Your task to perform on an android device: open app "File Manager" Image 0: 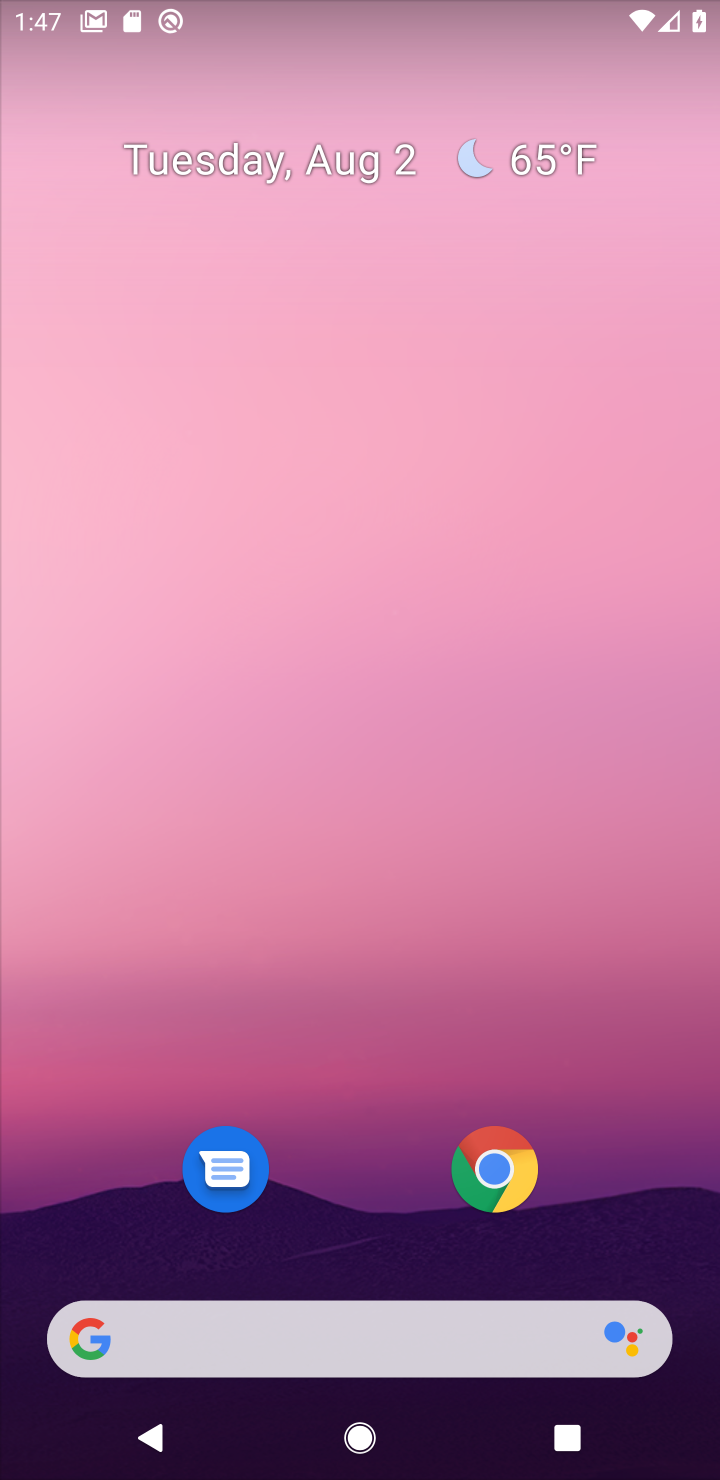
Step 0: press home button
Your task to perform on an android device: open app "File Manager" Image 1: 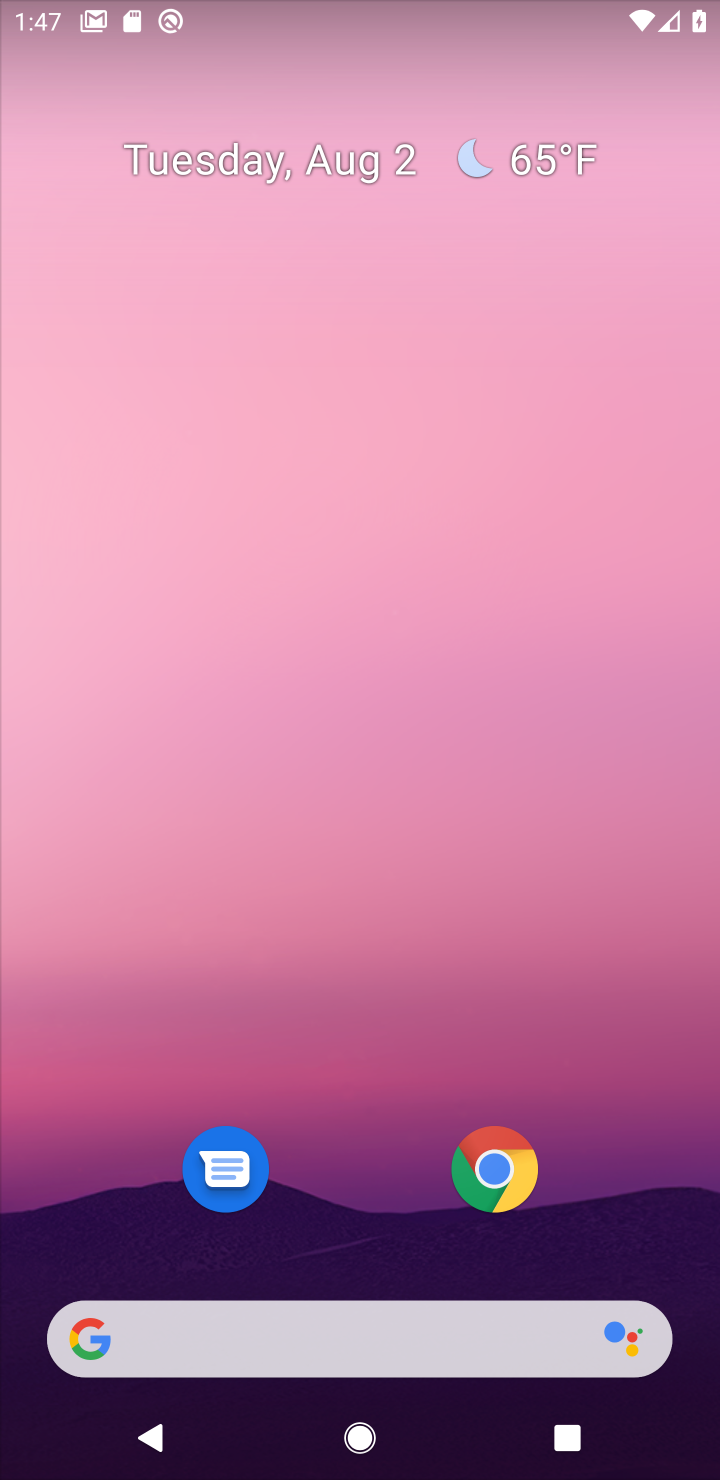
Step 1: drag from (349, 1216) to (313, 2)
Your task to perform on an android device: open app "File Manager" Image 2: 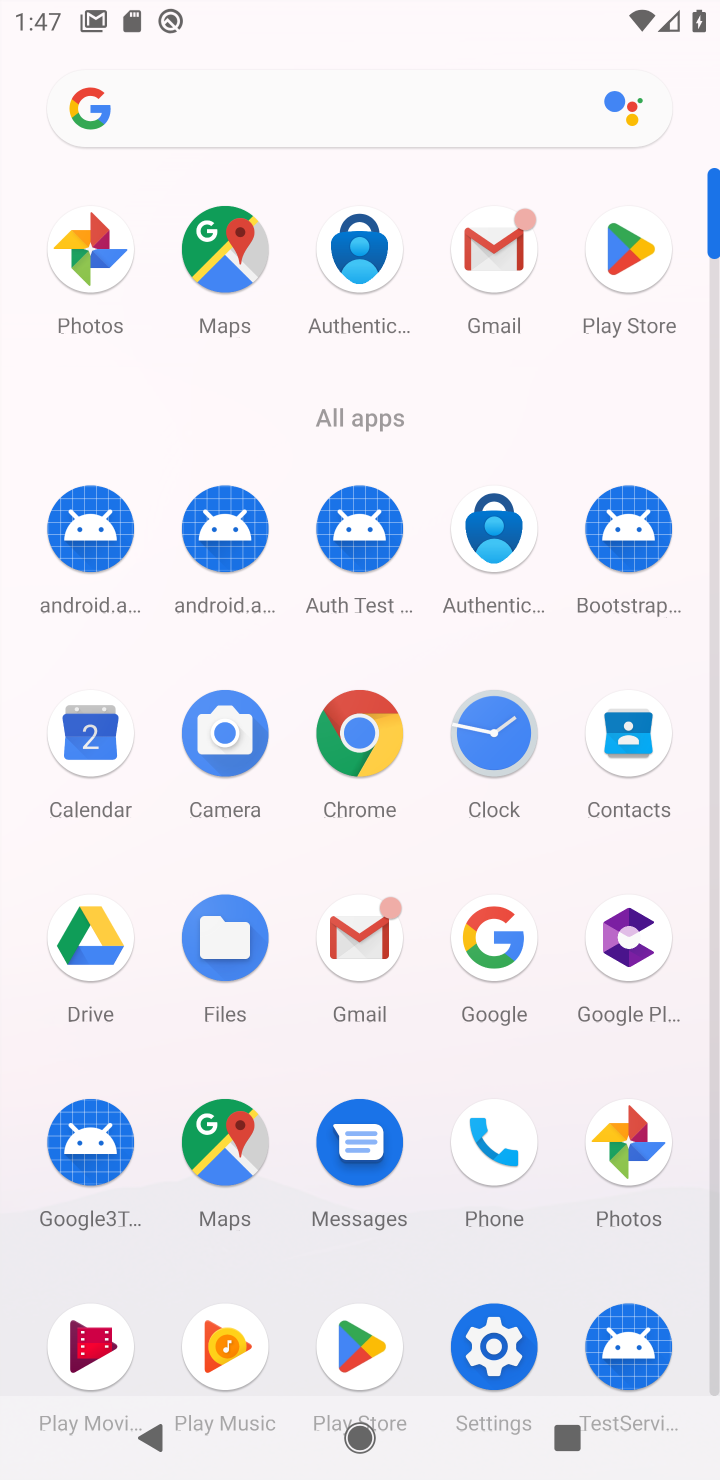
Step 2: click (626, 238)
Your task to perform on an android device: open app "File Manager" Image 3: 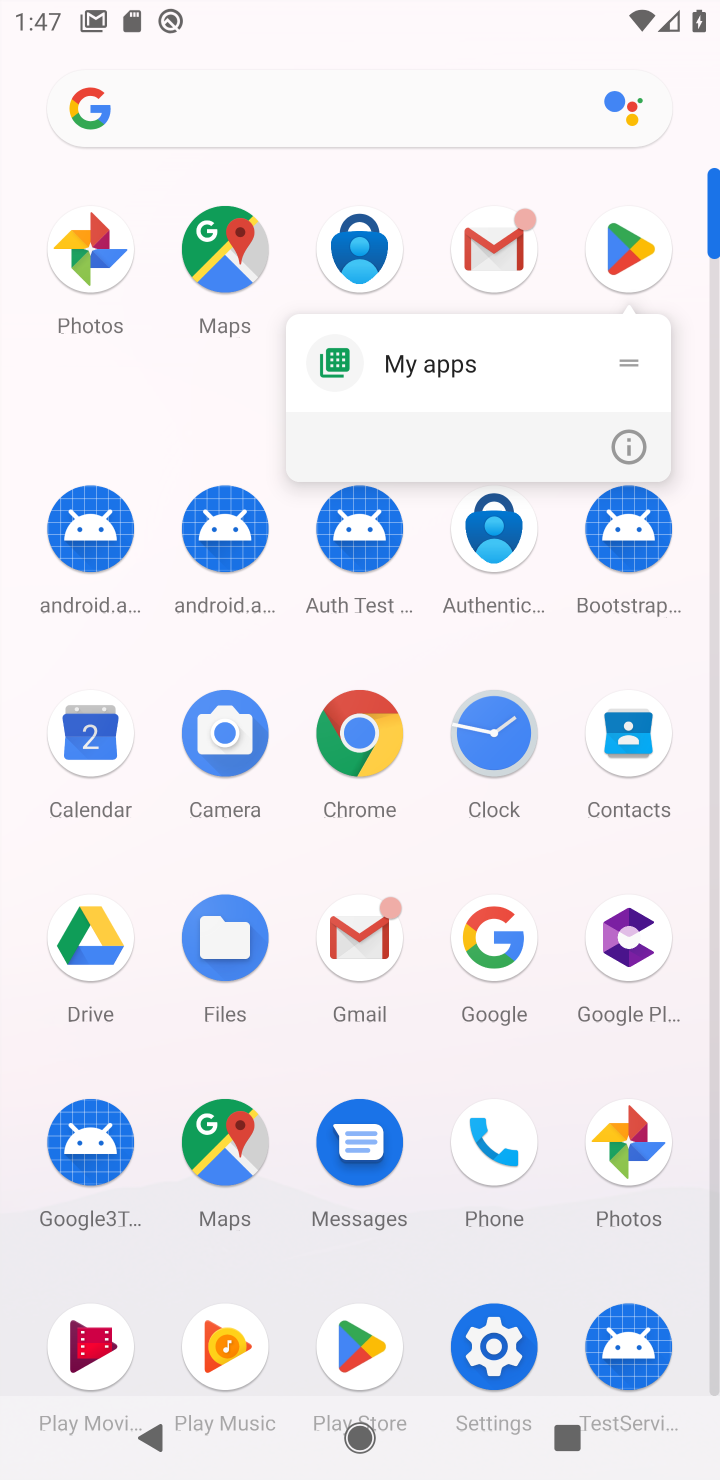
Step 3: click (637, 246)
Your task to perform on an android device: open app "File Manager" Image 4: 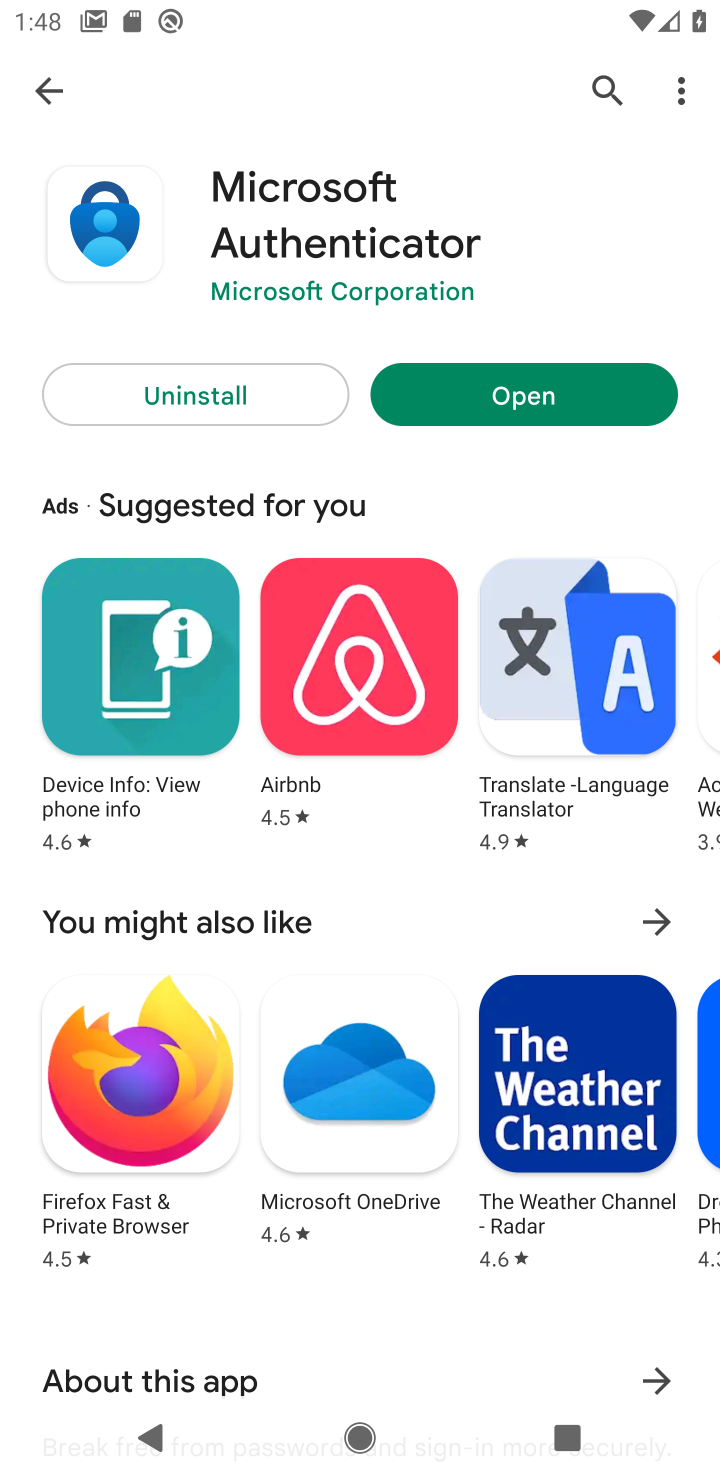
Step 4: click (598, 79)
Your task to perform on an android device: open app "File Manager" Image 5: 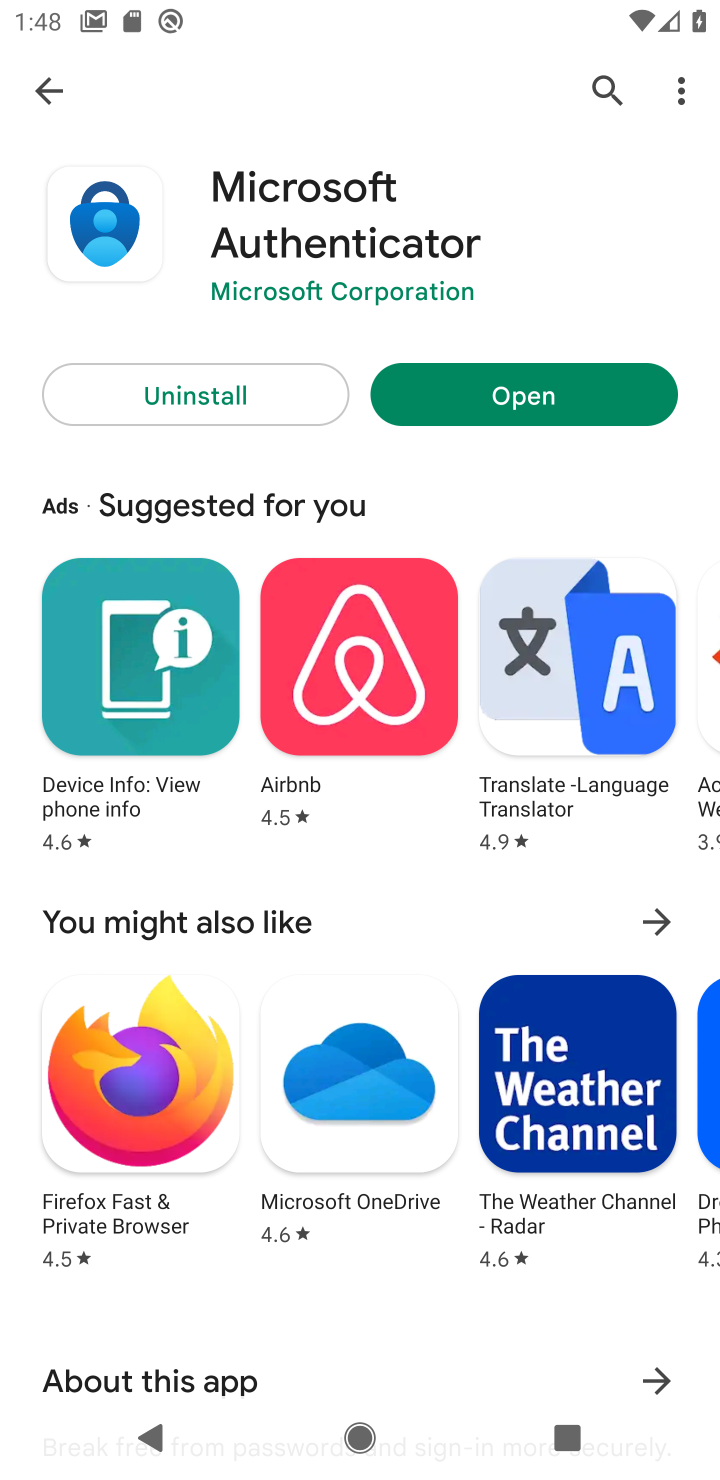
Step 5: click (601, 95)
Your task to perform on an android device: open app "File Manager" Image 6: 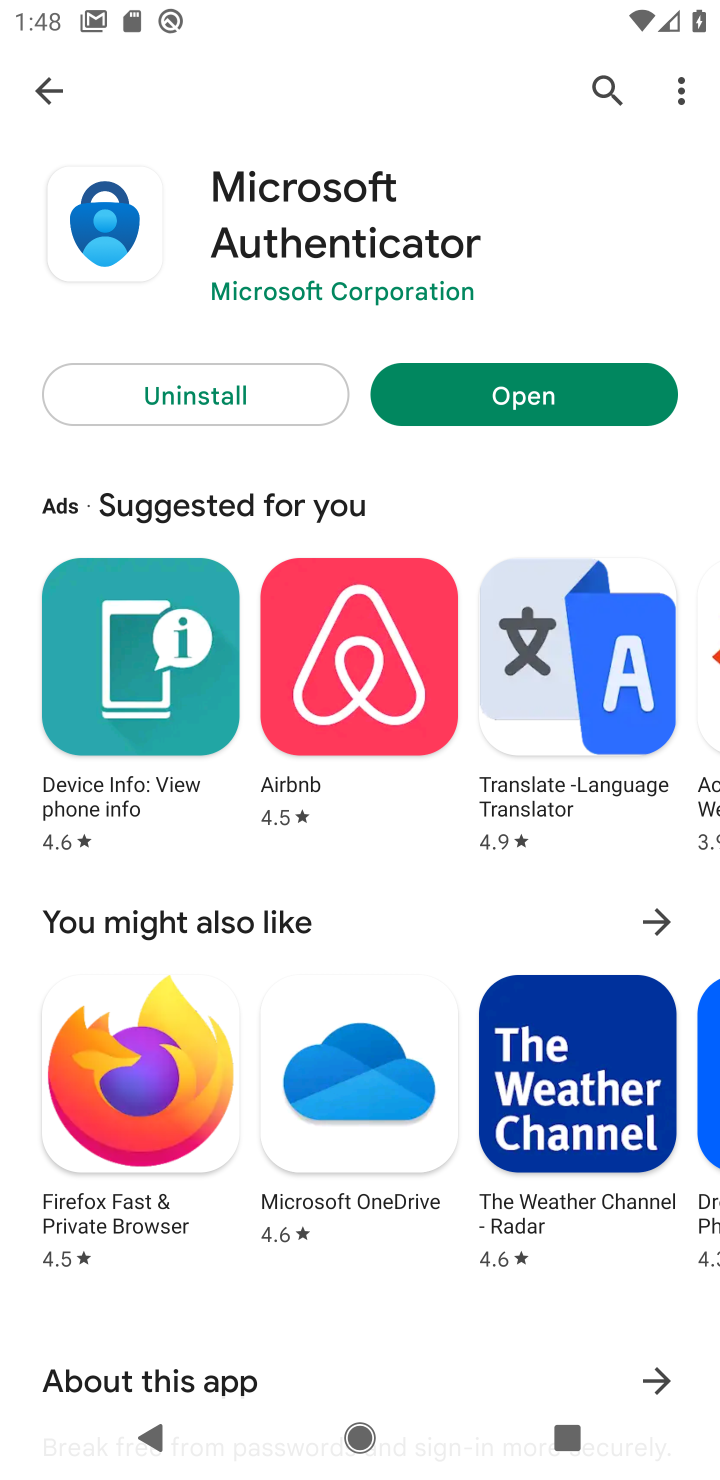
Step 6: click (606, 93)
Your task to perform on an android device: open app "File Manager" Image 7: 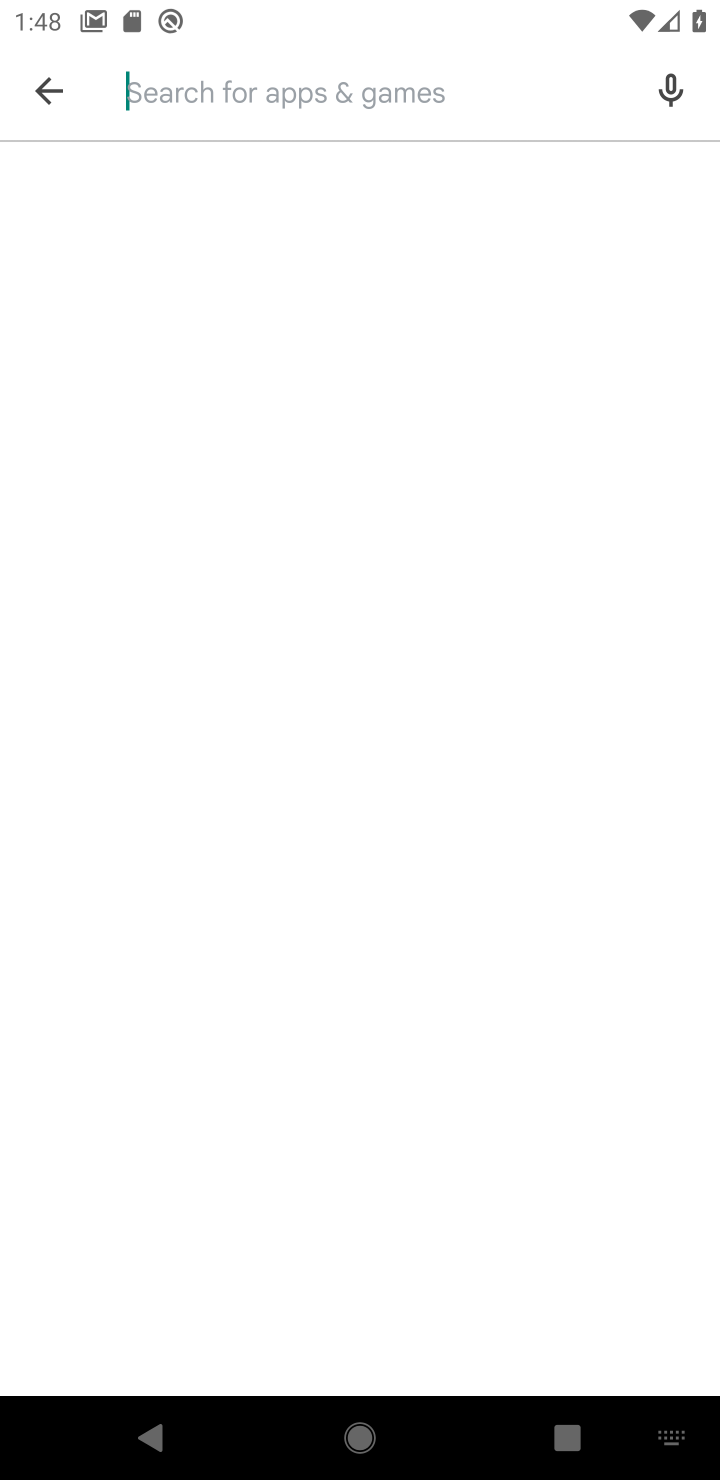
Step 7: type "File Manager"
Your task to perform on an android device: open app "File Manager" Image 8: 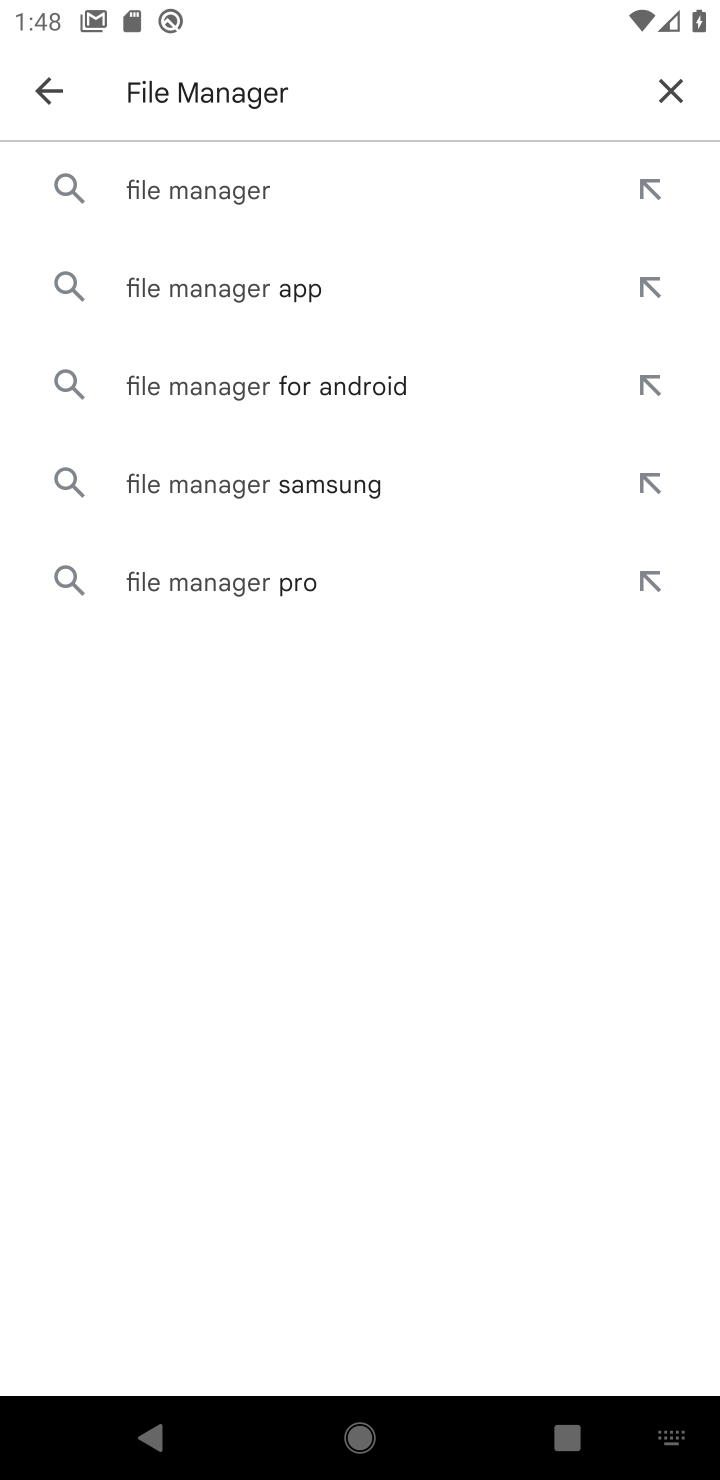
Step 8: click (244, 193)
Your task to perform on an android device: open app "File Manager" Image 9: 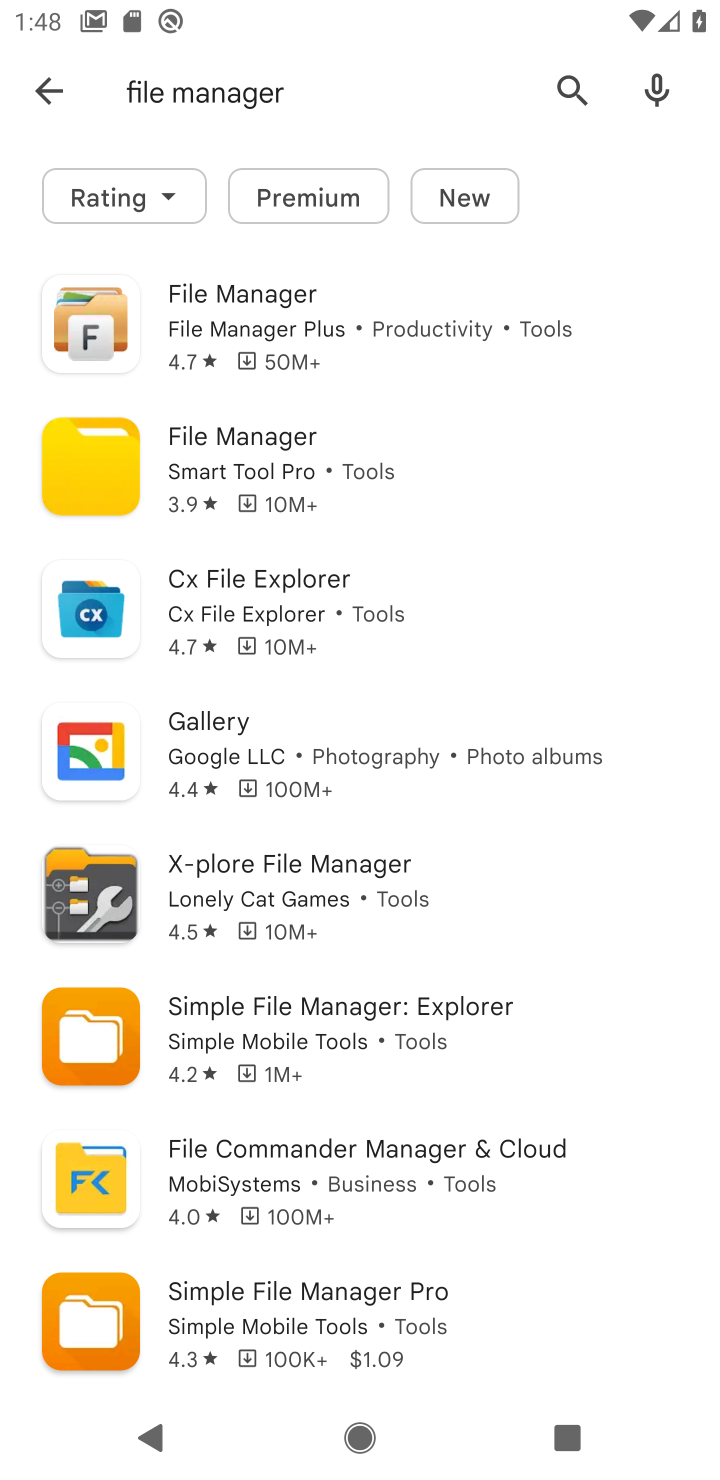
Step 9: click (228, 467)
Your task to perform on an android device: open app "File Manager" Image 10: 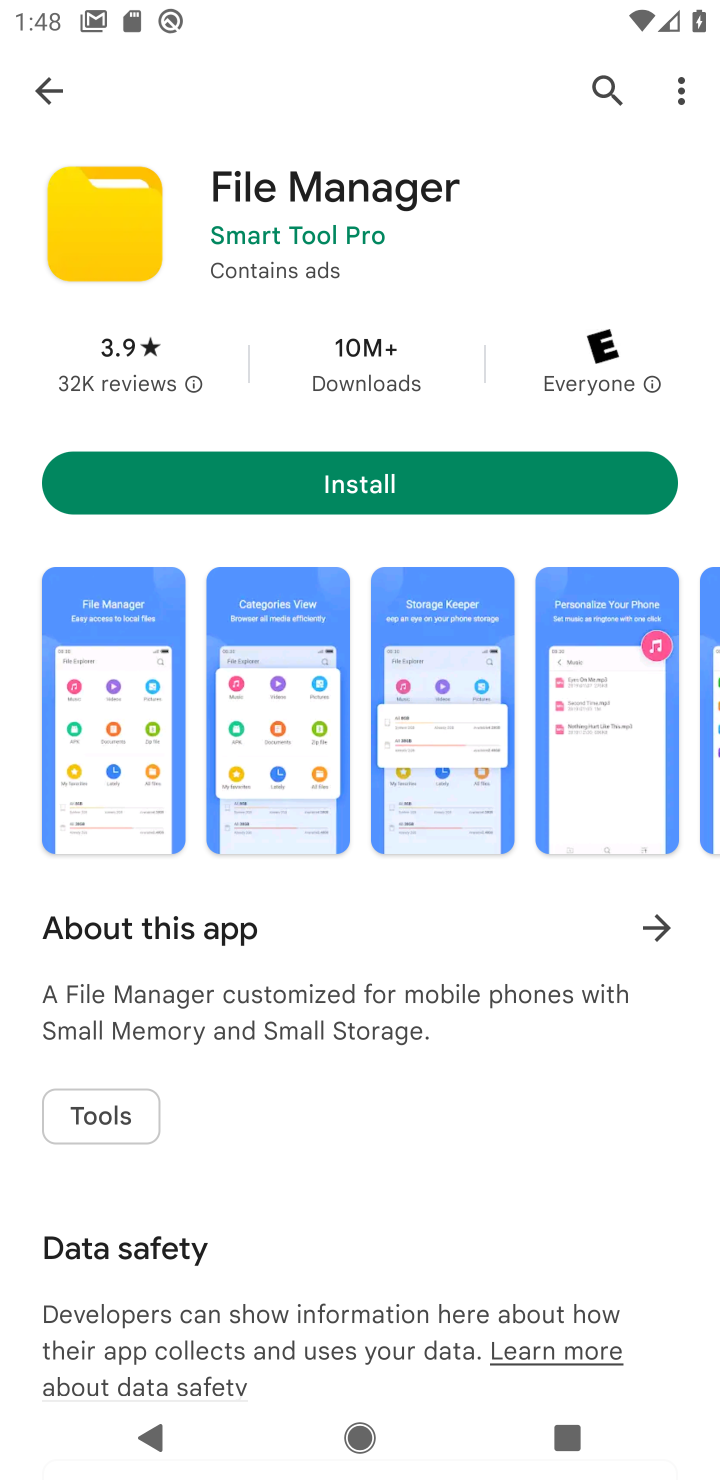
Step 10: task complete